Your task to perform on an android device: Search for Mexican restaurants on Maps Image 0: 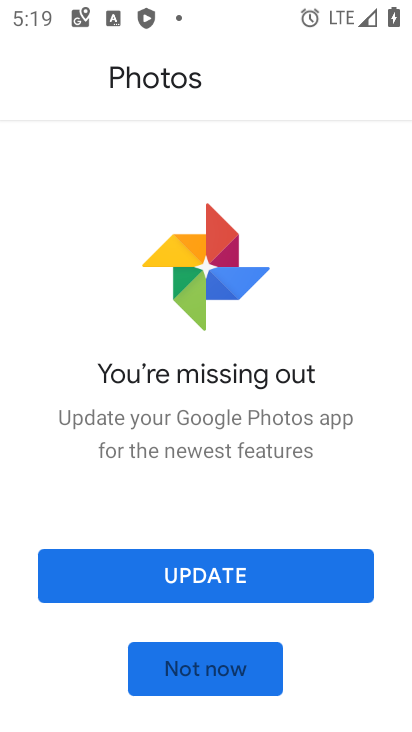
Step 0: press home button
Your task to perform on an android device: Search for Mexican restaurants on Maps Image 1: 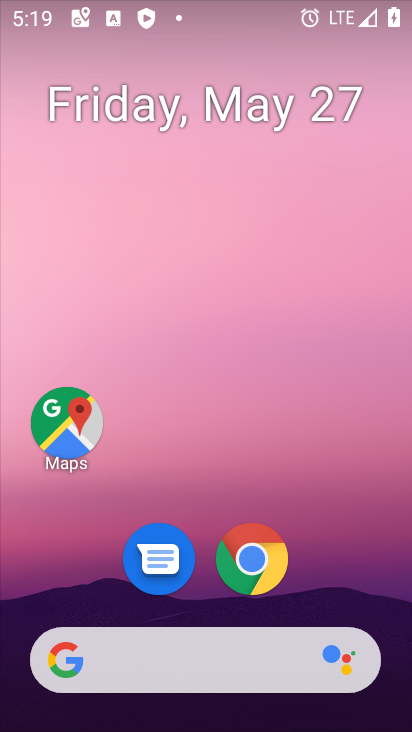
Step 1: drag from (188, 654) to (194, 80)
Your task to perform on an android device: Search for Mexican restaurants on Maps Image 2: 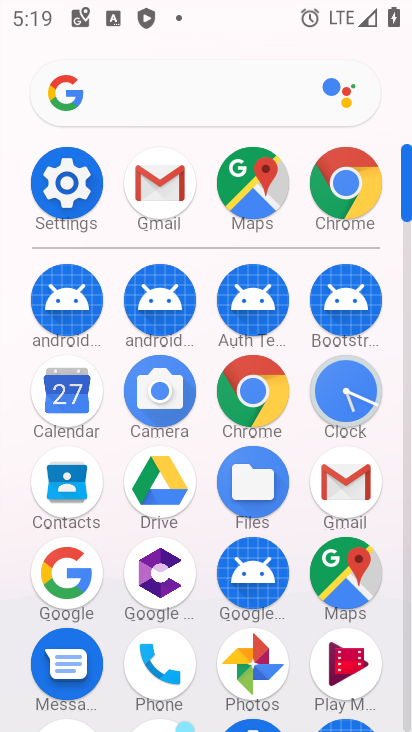
Step 2: drag from (359, 557) to (401, 557)
Your task to perform on an android device: Search for Mexican restaurants on Maps Image 3: 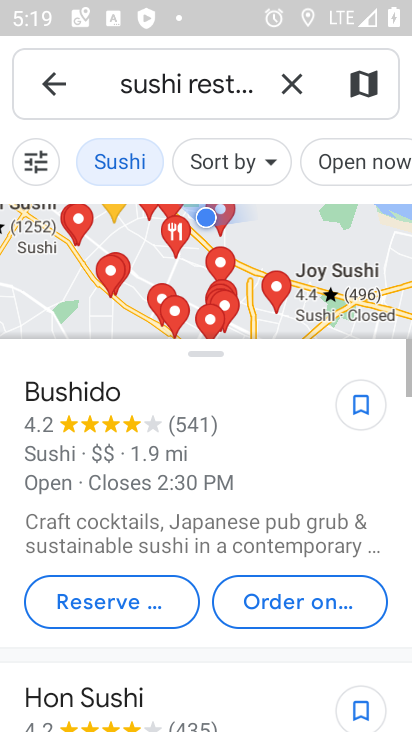
Step 3: press back button
Your task to perform on an android device: Search for Mexican restaurants on Maps Image 4: 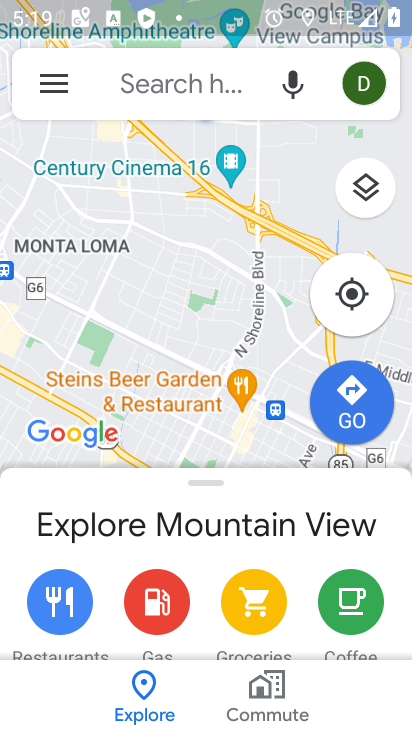
Step 4: click (188, 77)
Your task to perform on an android device: Search for Mexican restaurants on Maps Image 5: 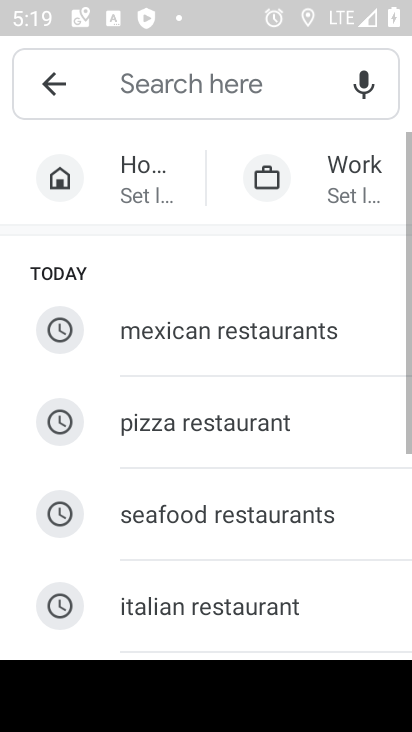
Step 5: click (213, 357)
Your task to perform on an android device: Search for Mexican restaurants on Maps Image 6: 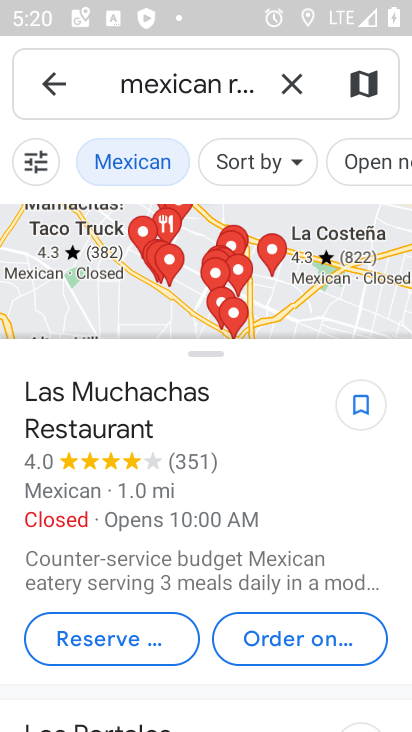
Step 6: task complete